Your task to perform on an android device: Show me popular games on the Play Store Image 0: 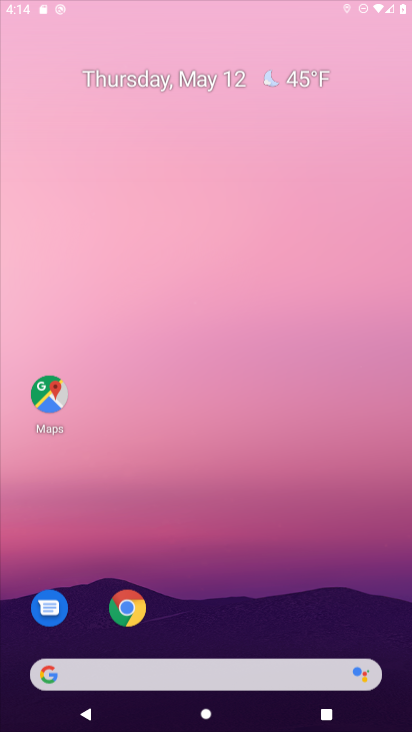
Step 0: click (191, 63)
Your task to perform on an android device: Show me popular games on the Play Store Image 1: 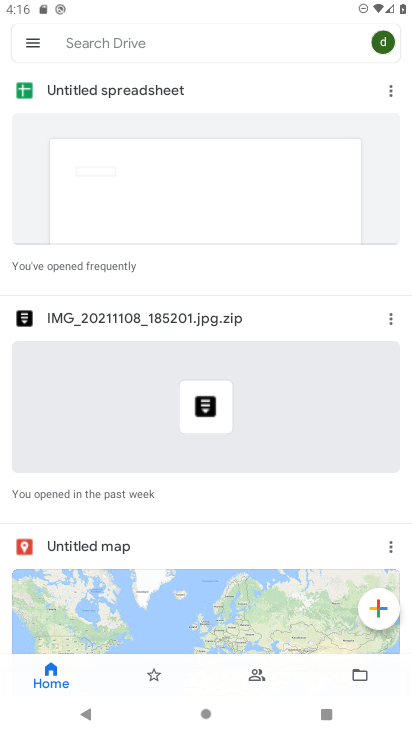
Step 1: press home button
Your task to perform on an android device: Show me popular games on the Play Store Image 2: 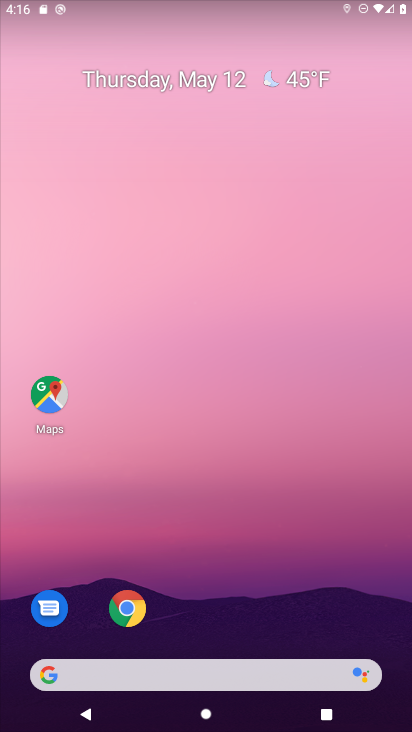
Step 2: drag from (242, 577) to (209, 59)
Your task to perform on an android device: Show me popular games on the Play Store Image 3: 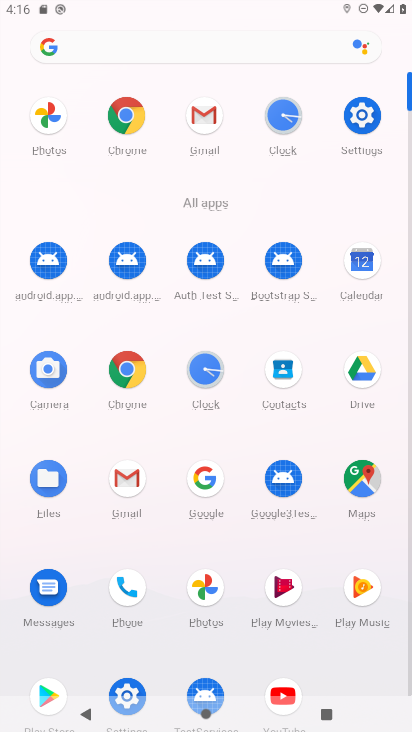
Step 3: click (224, 592)
Your task to perform on an android device: Show me popular games on the Play Store Image 4: 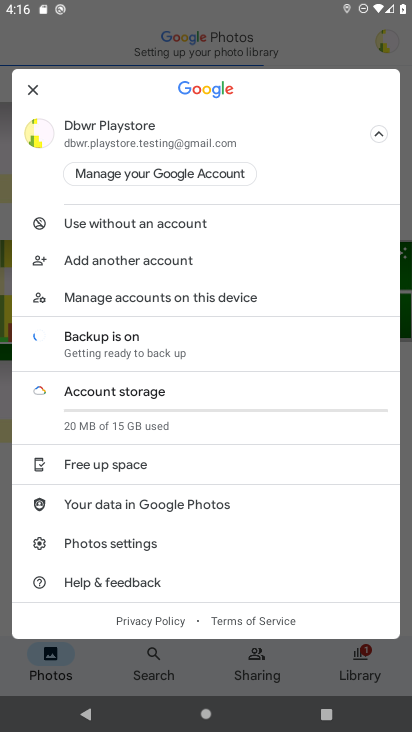
Step 4: press home button
Your task to perform on an android device: Show me popular games on the Play Store Image 5: 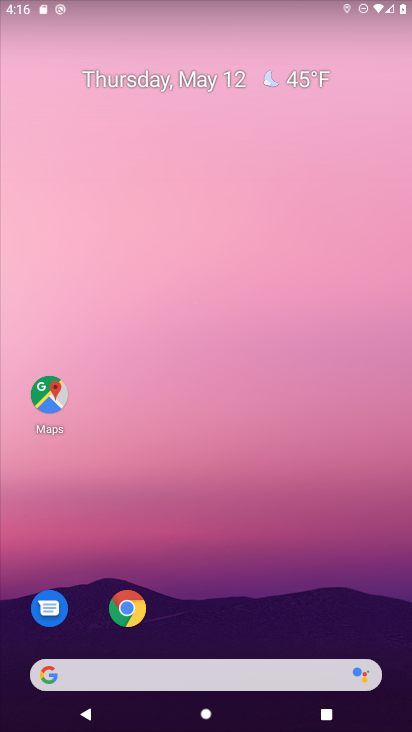
Step 5: drag from (244, 620) to (174, 312)
Your task to perform on an android device: Show me popular games on the Play Store Image 6: 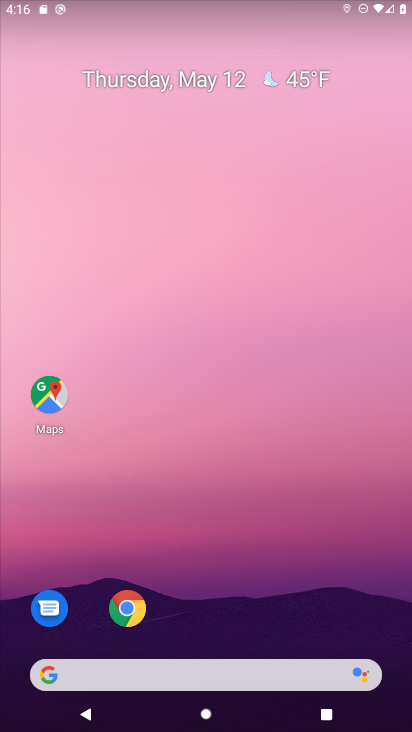
Step 6: drag from (253, 552) to (245, 11)
Your task to perform on an android device: Show me popular games on the Play Store Image 7: 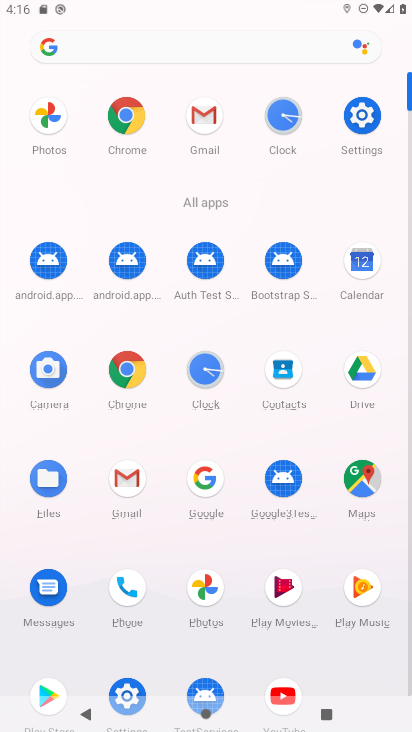
Step 7: click (56, 685)
Your task to perform on an android device: Show me popular games on the Play Store Image 8: 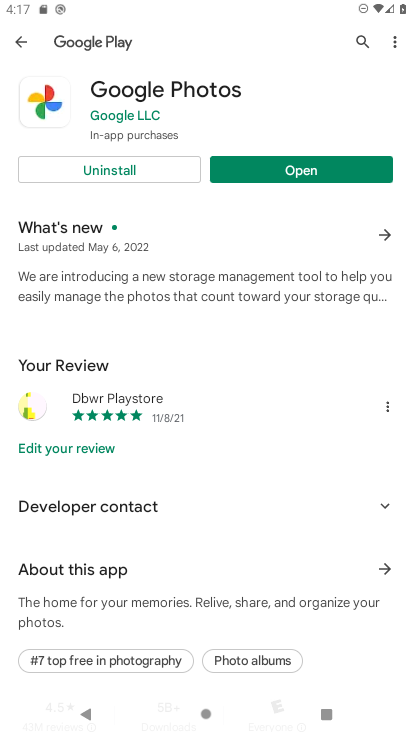
Step 8: press home button
Your task to perform on an android device: Show me popular games on the Play Store Image 9: 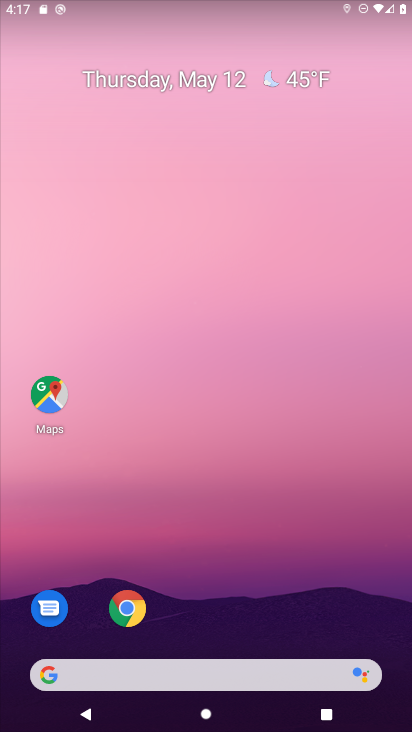
Step 9: drag from (204, 560) to (158, 83)
Your task to perform on an android device: Show me popular games on the Play Store Image 10: 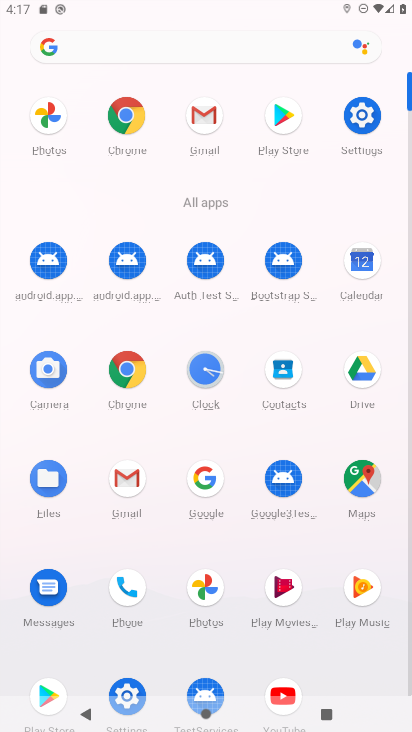
Step 10: click (49, 679)
Your task to perform on an android device: Show me popular games on the Play Store Image 11: 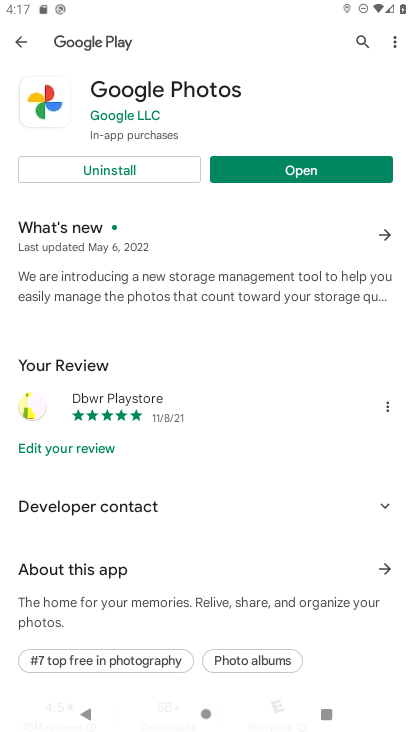
Step 11: click (266, 159)
Your task to perform on an android device: Show me popular games on the Play Store Image 12: 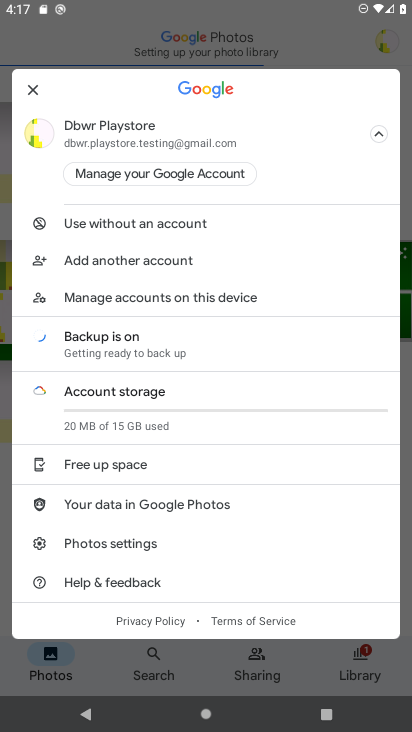
Step 12: press home button
Your task to perform on an android device: Show me popular games on the Play Store Image 13: 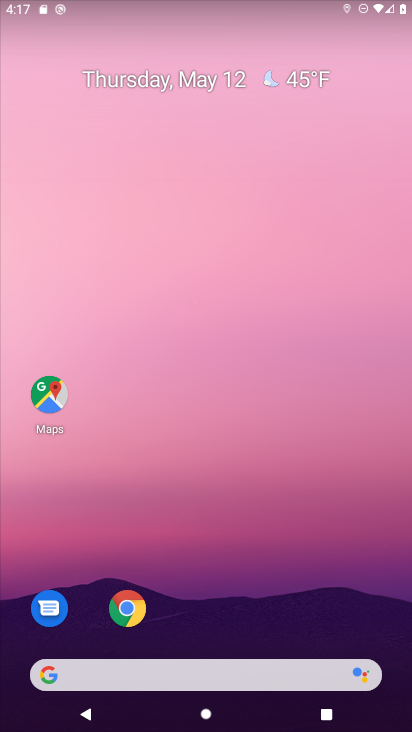
Step 13: drag from (297, 635) to (185, 63)
Your task to perform on an android device: Show me popular games on the Play Store Image 14: 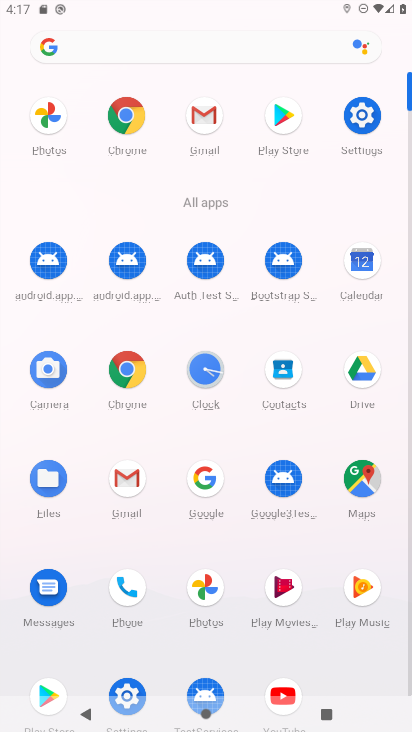
Step 14: click (264, 134)
Your task to perform on an android device: Show me popular games on the Play Store Image 15: 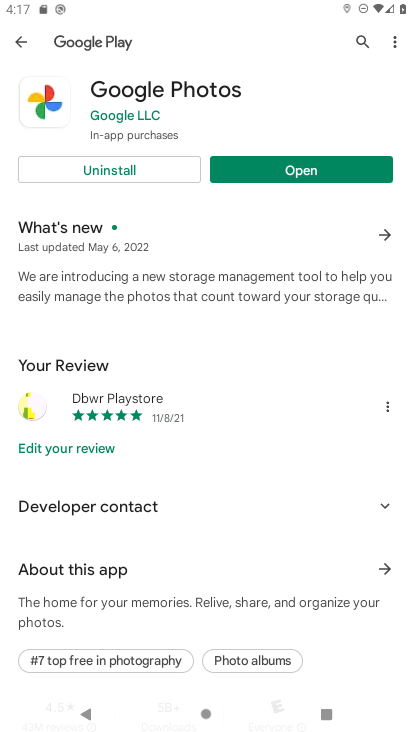
Step 15: press back button
Your task to perform on an android device: Show me popular games on the Play Store Image 16: 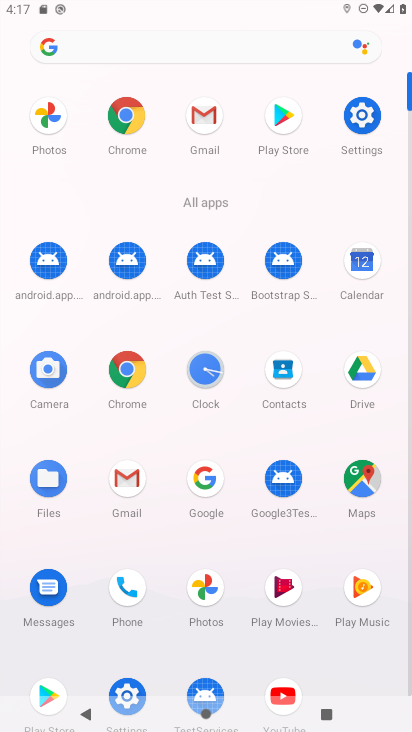
Step 16: click (271, 134)
Your task to perform on an android device: Show me popular games on the Play Store Image 17: 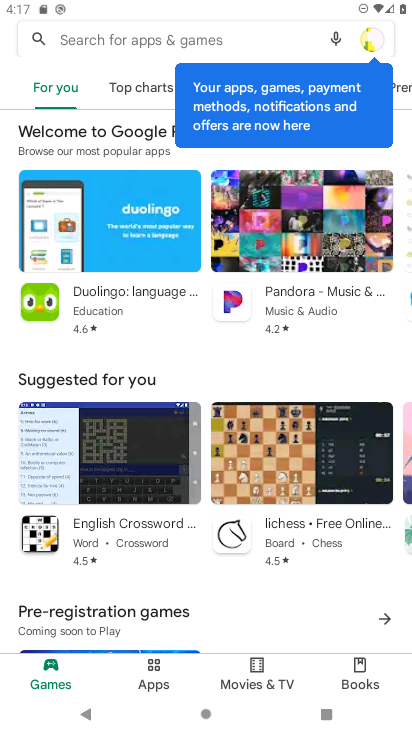
Step 17: click (132, 95)
Your task to perform on an android device: Show me popular games on the Play Store Image 18: 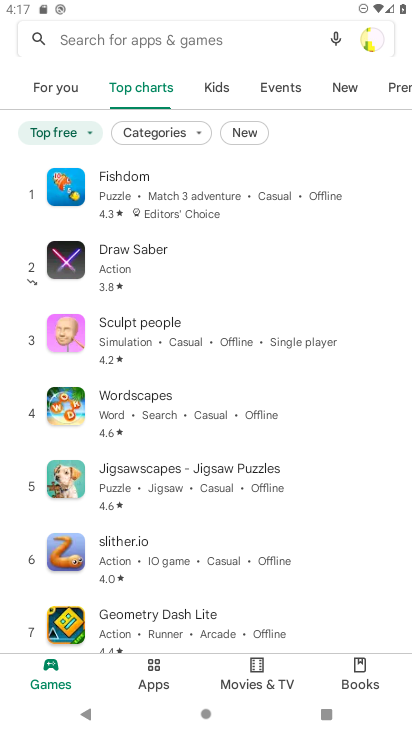
Step 18: click (156, 668)
Your task to perform on an android device: Show me popular games on the Play Store Image 19: 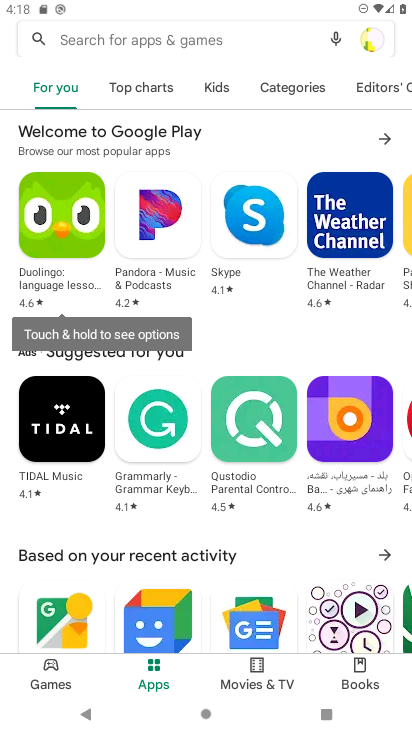
Step 19: click (121, 96)
Your task to perform on an android device: Show me popular games on the Play Store Image 20: 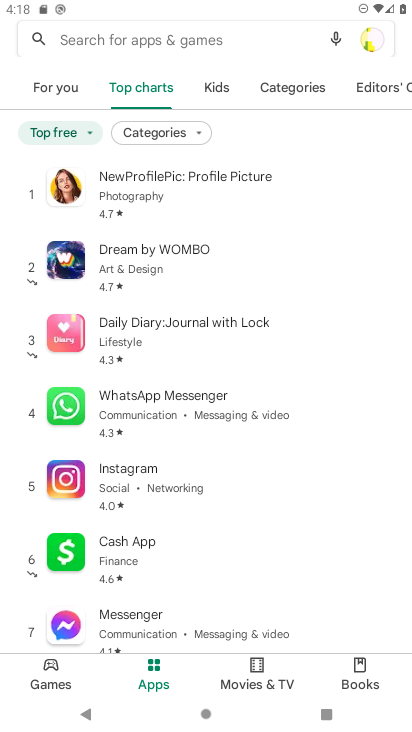
Step 20: click (52, 90)
Your task to perform on an android device: Show me popular games on the Play Store Image 21: 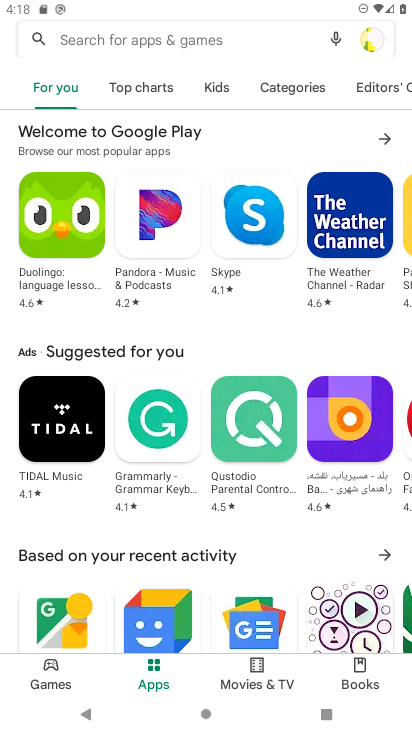
Step 21: task complete